Your task to perform on an android device: Open the phone app and click the voicemail tab. Image 0: 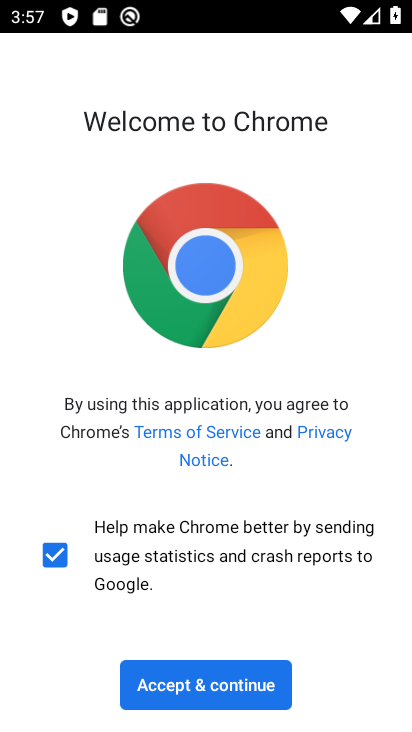
Step 0: press home button
Your task to perform on an android device: Open the phone app and click the voicemail tab. Image 1: 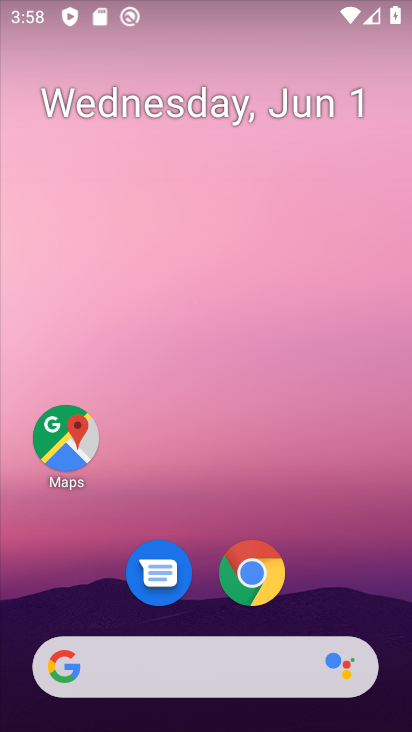
Step 1: drag from (189, 624) to (199, 222)
Your task to perform on an android device: Open the phone app and click the voicemail tab. Image 2: 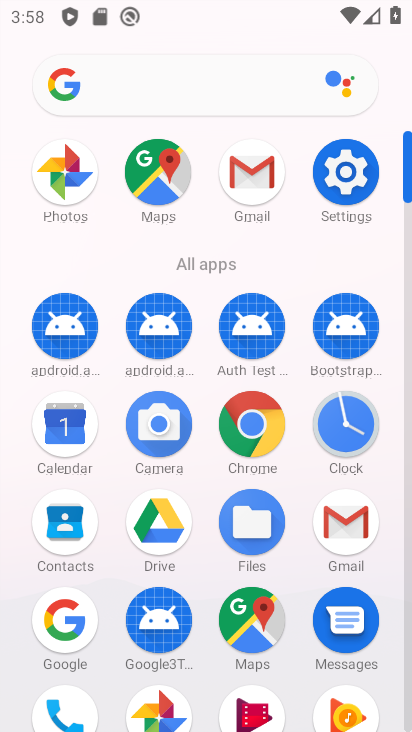
Step 2: drag from (97, 697) to (113, 348)
Your task to perform on an android device: Open the phone app and click the voicemail tab. Image 3: 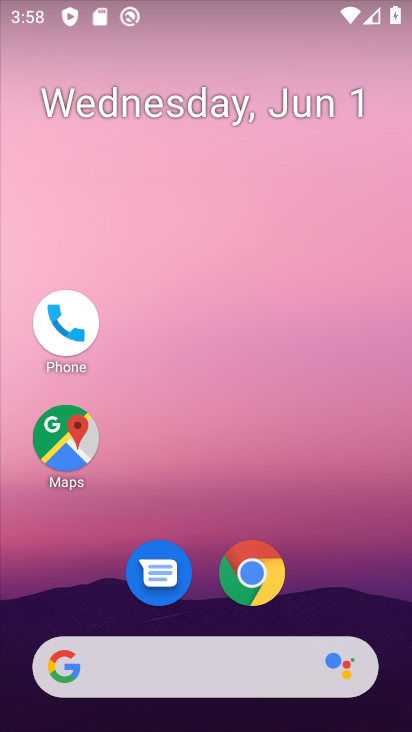
Step 3: drag from (113, 616) to (86, 446)
Your task to perform on an android device: Open the phone app and click the voicemail tab. Image 4: 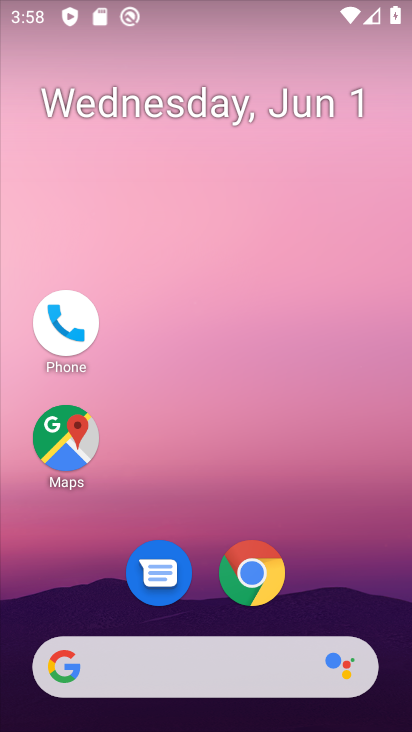
Step 4: drag from (209, 591) to (249, 147)
Your task to perform on an android device: Open the phone app and click the voicemail tab. Image 5: 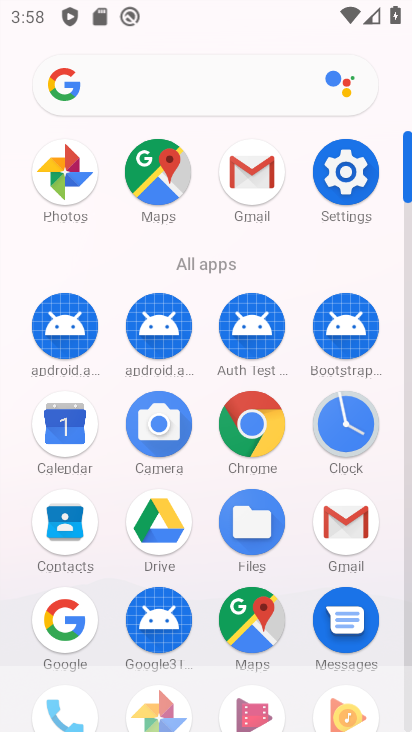
Step 5: drag from (196, 562) to (213, 99)
Your task to perform on an android device: Open the phone app and click the voicemail tab. Image 6: 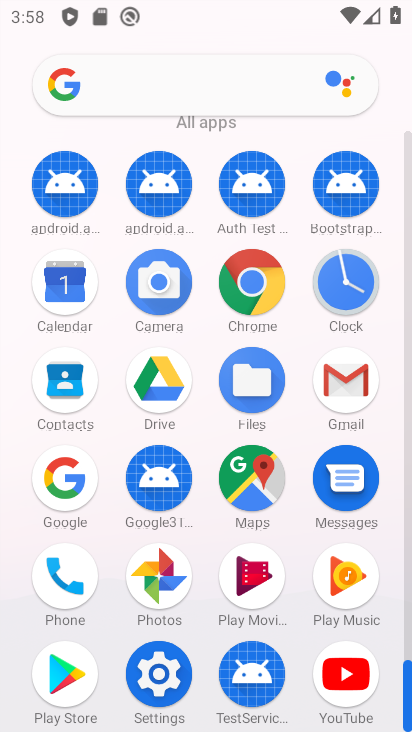
Step 6: drag from (104, 581) to (116, 153)
Your task to perform on an android device: Open the phone app and click the voicemail tab. Image 7: 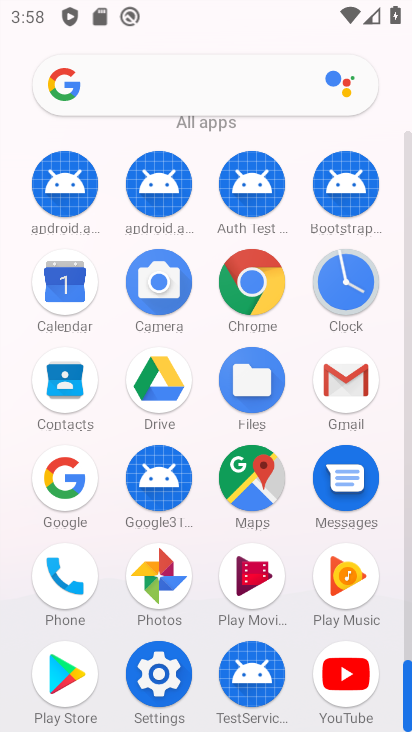
Step 7: click (54, 607)
Your task to perform on an android device: Open the phone app and click the voicemail tab. Image 8: 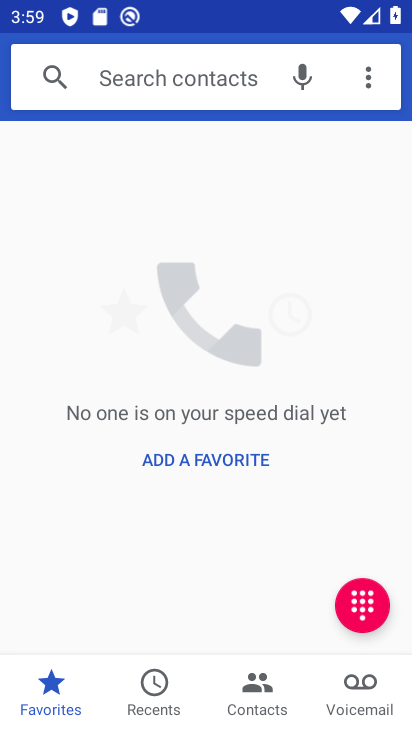
Step 8: click (345, 697)
Your task to perform on an android device: Open the phone app and click the voicemail tab. Image 9: 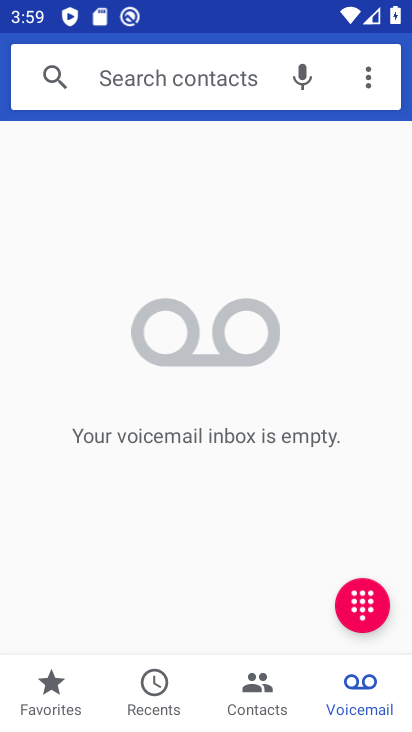
Step 9: click (371, 691)
Your task to perform on an android device: Open the phone app and click the voicemail tab. Image 10: 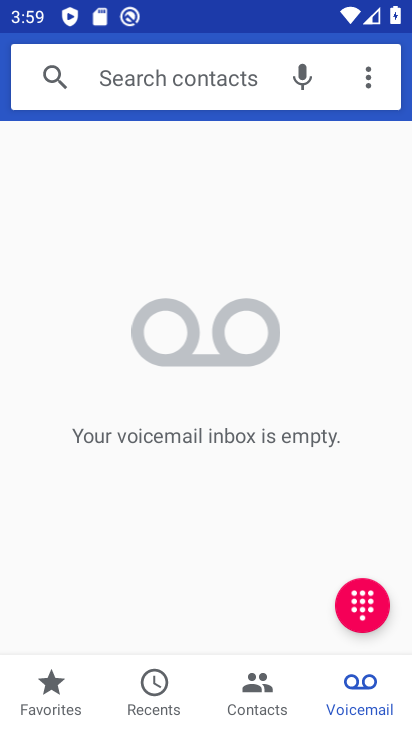
Step 10: task complete